Your task to perform on an android device: set an alarm Image 0: 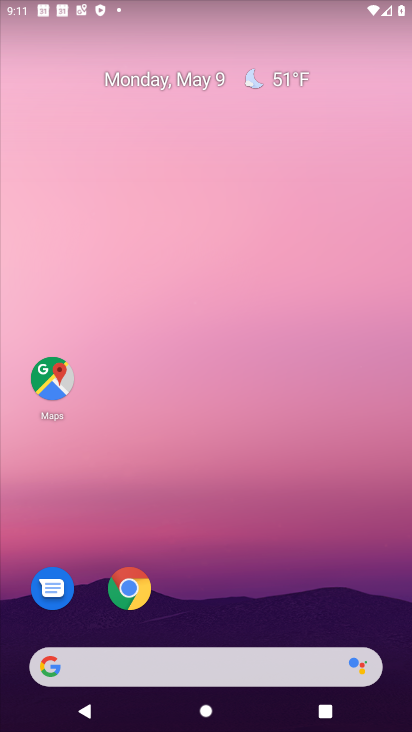
Step 0: drag from (287, 604) to (216, 56)
Your task to perform on an android device: set an alarm Image 1: 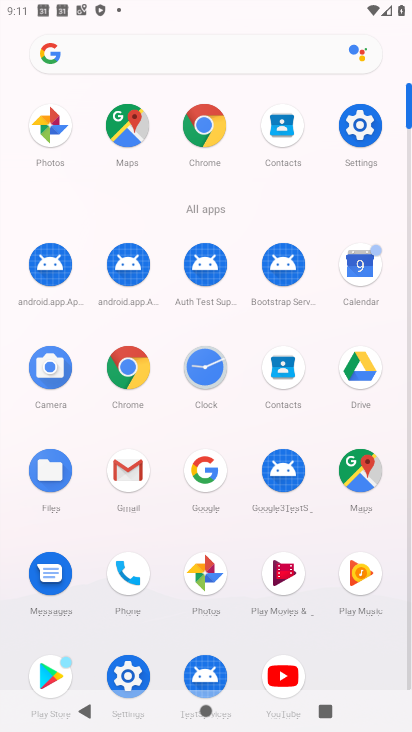
Step 1: click (197, 365)
Your task to perform on an android device: set an alarm Image 2: 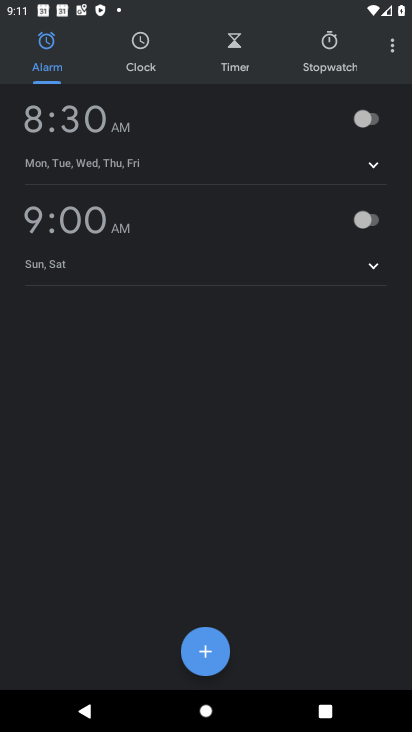
Step 2: click (368, 226)
Your task to perform on an android device: set an alarm Image 3: 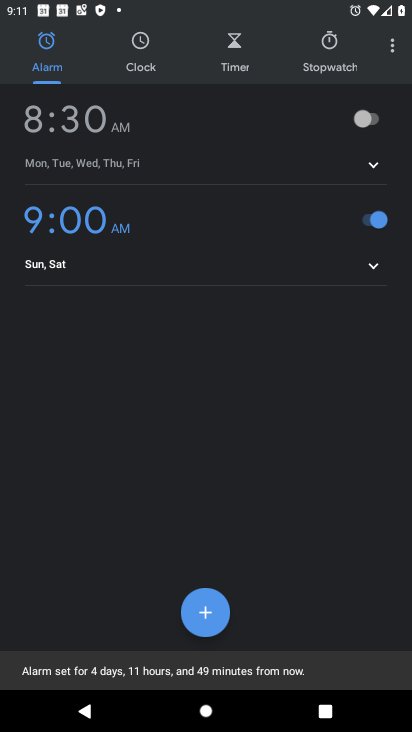
Step 3: task complete